Your task to perform on an android device: Go to settings Image 0: 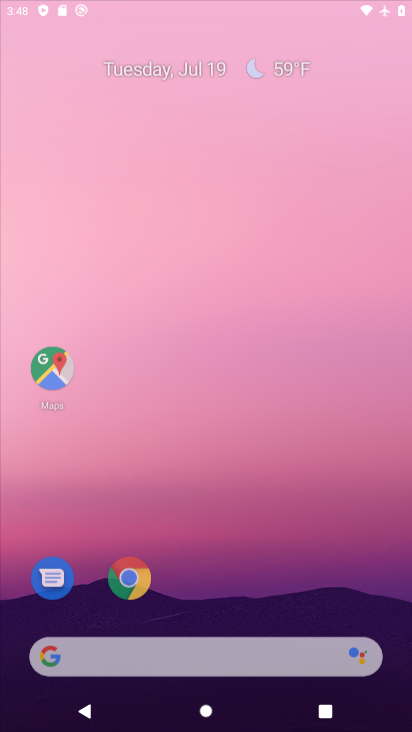
Step 0: press home button
Your task to perform on an android device: Go to settings Image 1: 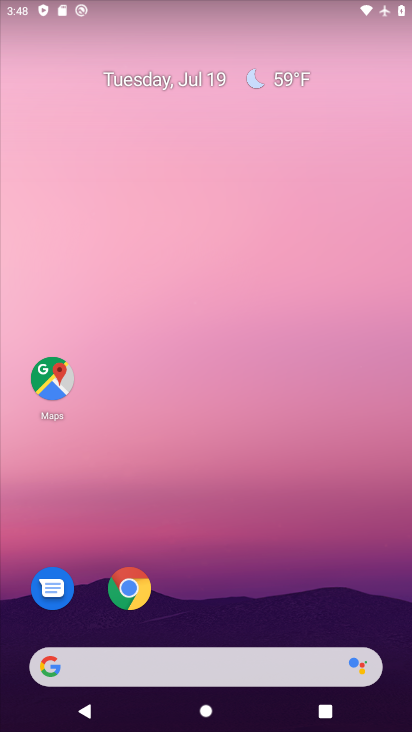
Step 1: drag from (203, 631) to (266, 160)
Your task to perform on an android device: Go to settings Image 2: 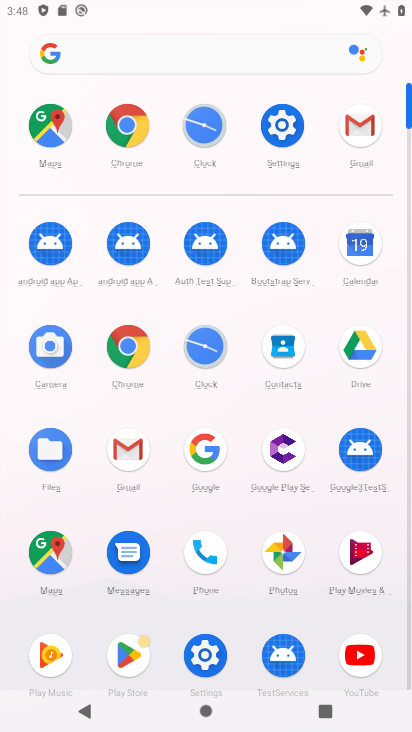
Step 2: click (285, 134)
Your task to perform on an android device: Go to settings Image 3: 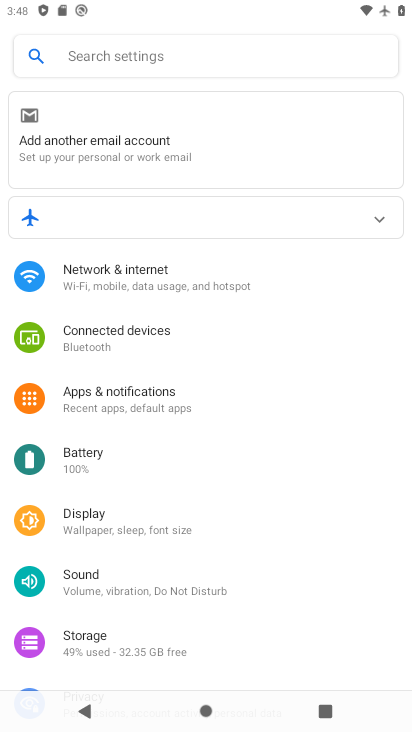
Step 3: task complete